Your task to perform on an android device: toggle wifi Image 0: 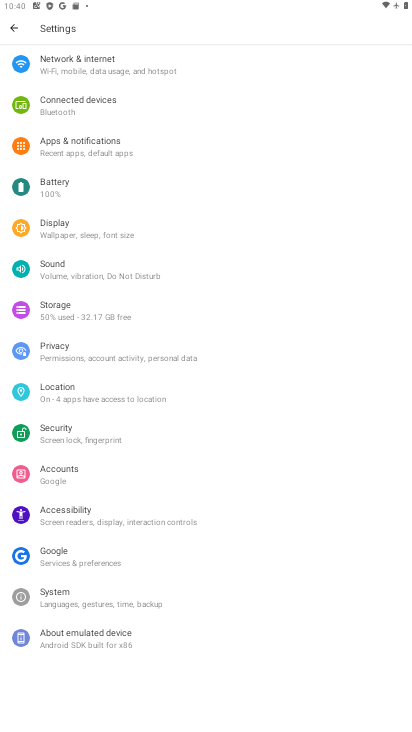
Step 0: click (161, 76)
Your task to perform on an android device: toggle wifi Image 1: 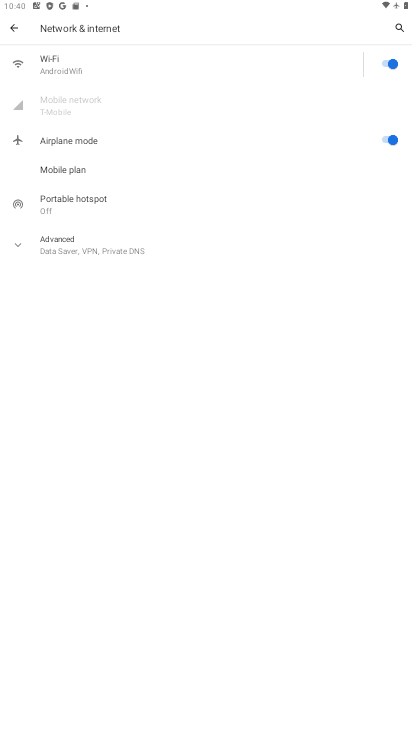
Step 1: click (161, 80)
Your task to perform on an android device: toggle wifi Image 2: 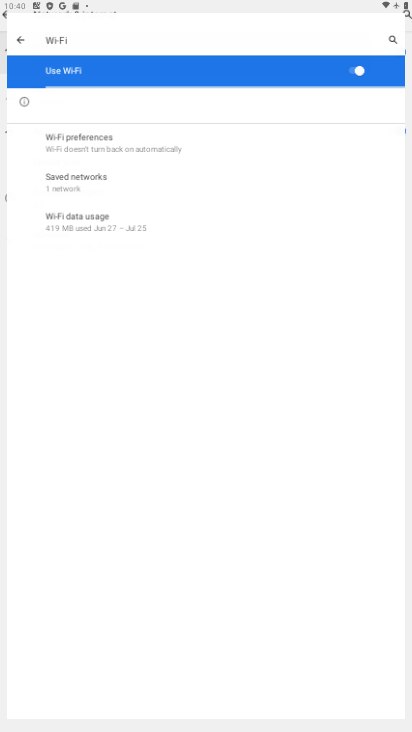
Step 2: task complete